Your task to perform on an android device: Open calendar and show me the second week of next month Image 0: 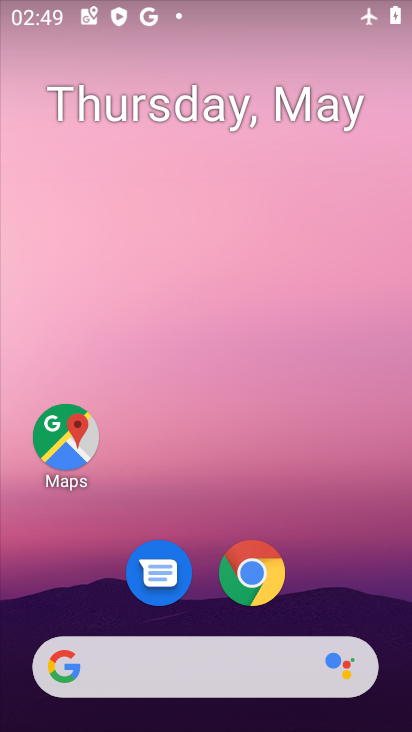
Step 0: drag from (312, 557) to (306, 223)
Your task to perform on an android device: Open calendar and show me the second week of next month Image 1: 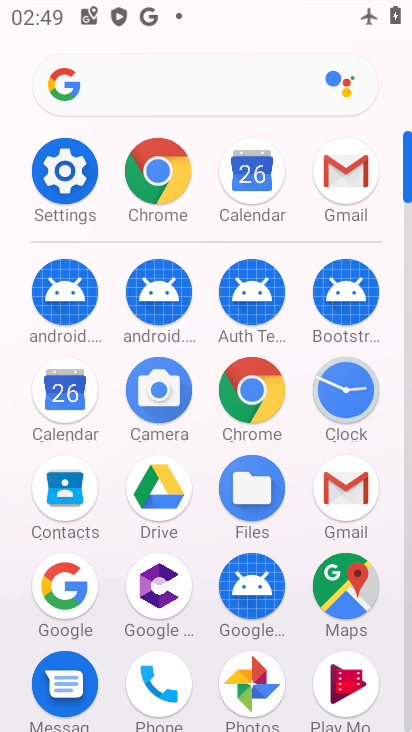
Step 1: click (69, 381)
Your task to perform on an android device: Open calendar and show me the second week of next month Image 2: 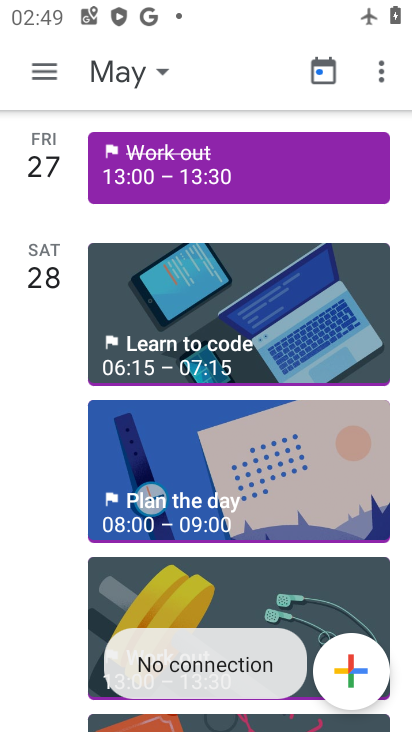
Step 2: click (47, 70)
Your task to perform on an android device: Open calendar and show me the second week of next month Image 3: 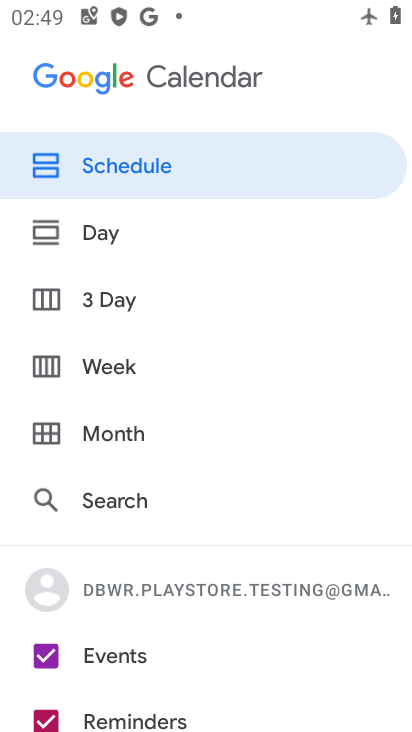
Step 3: click (127, 435)
Your task to perform on an android device: Open calendar and show me the second week of next month Image 4: 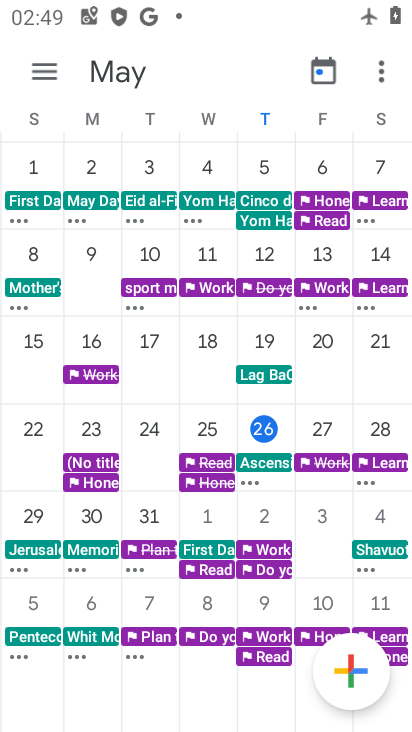
Step 4: task complete